Your task to perform on an android device: Go to sound settings Image 0: 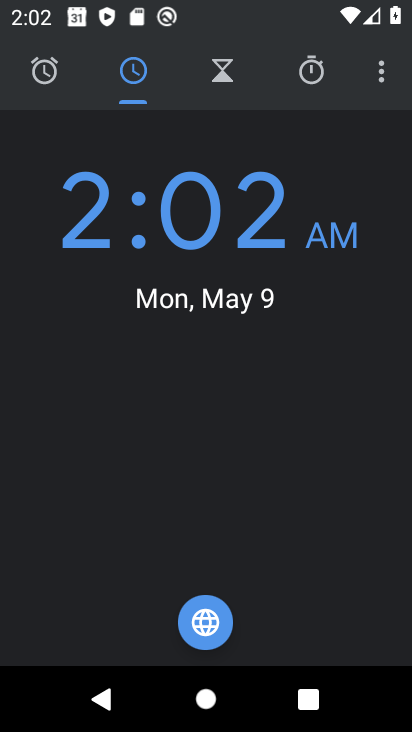
Step 0: press home button
Your task to perform on an android device: Go to sound settings Image 1: 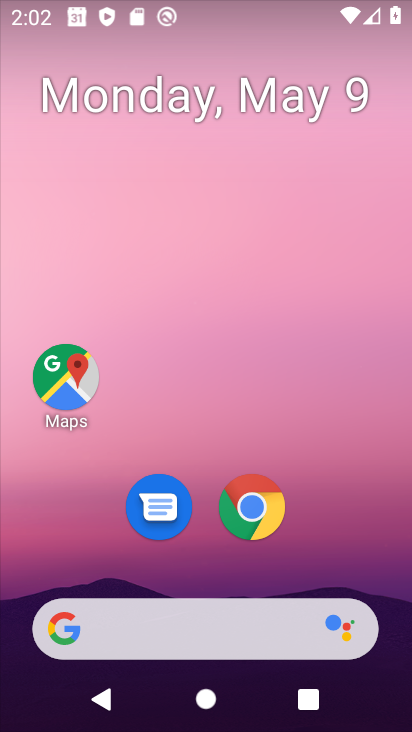
Step 1: drag from (205, 449) to (204, 16)
Your task to perform on an android device: Go to sound settings Image 2: 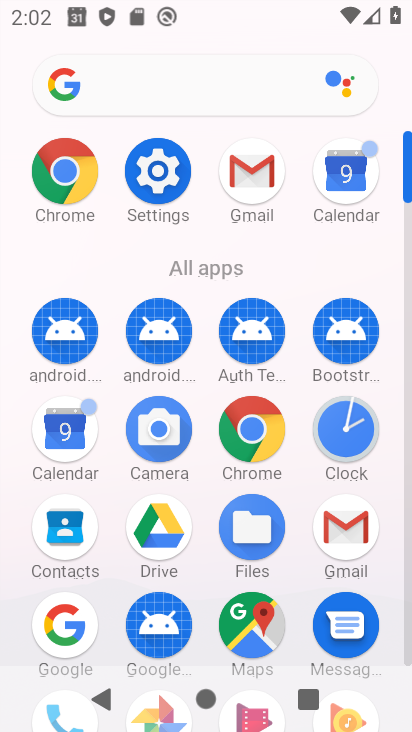
Step 2: click (167, 174)
Your task to perform on an android device: Go to sound settings Image 3: 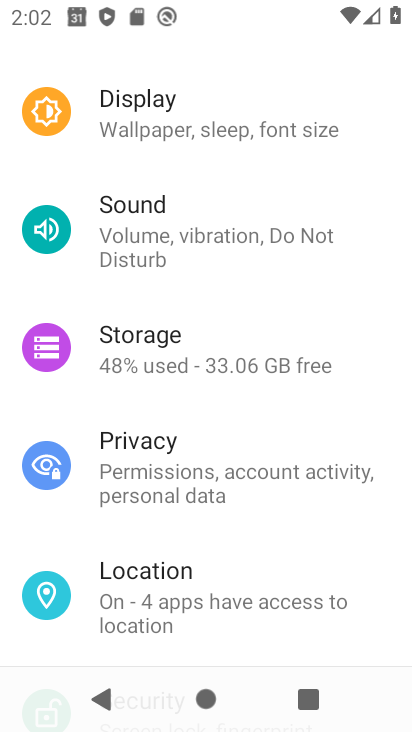
Step 3: click (206, 219)
Your task to perform on an android device: Go to sound settings Image 4: 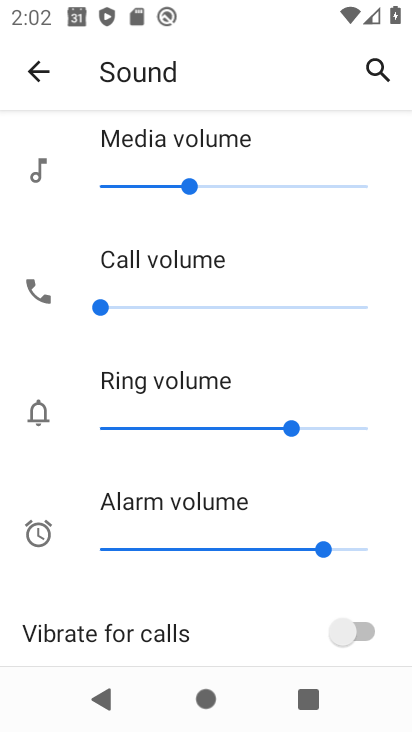
Step 4: task complete